Your task to perform on an android device: Open Yahoo.com Image 0: 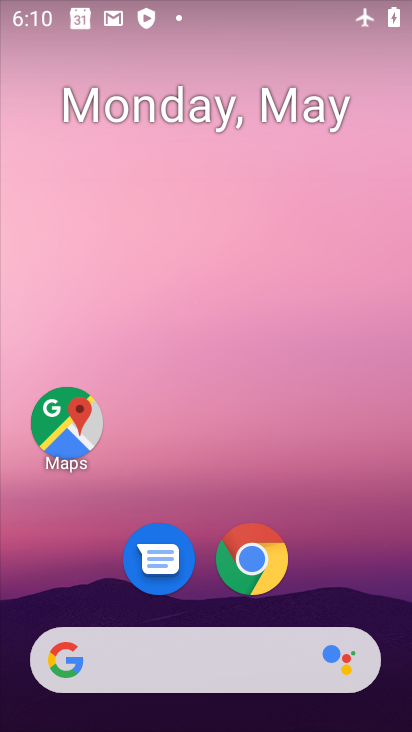
Step 0: click (259, 562)
Your task to perform on an android device: Open Yahoo.com Image 1: 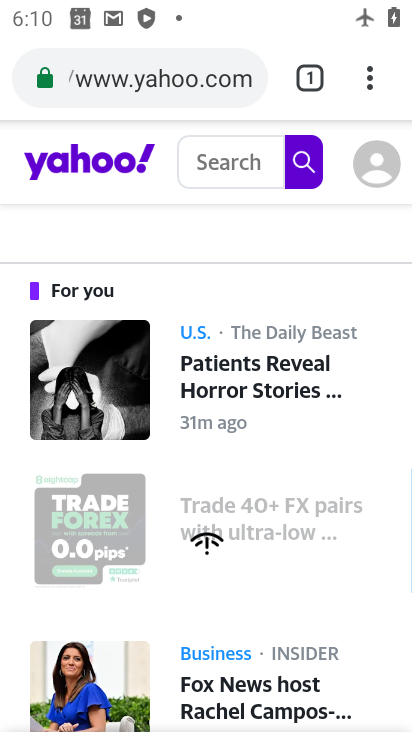
Step 1: task complete